Your task to perform on an android device: uninstall "ColorNote Notepad Notes" Image 0: 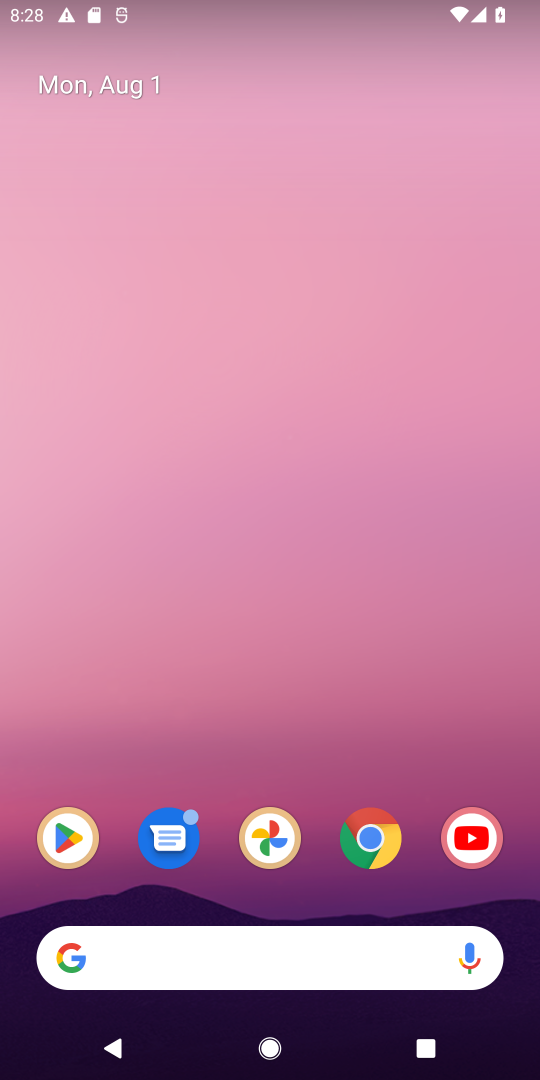
Step 0: drag from (303, 948) to (405, 129)
Your task to perform on an android device: uninstall "ColorNote Notepad Notes" Image 1: 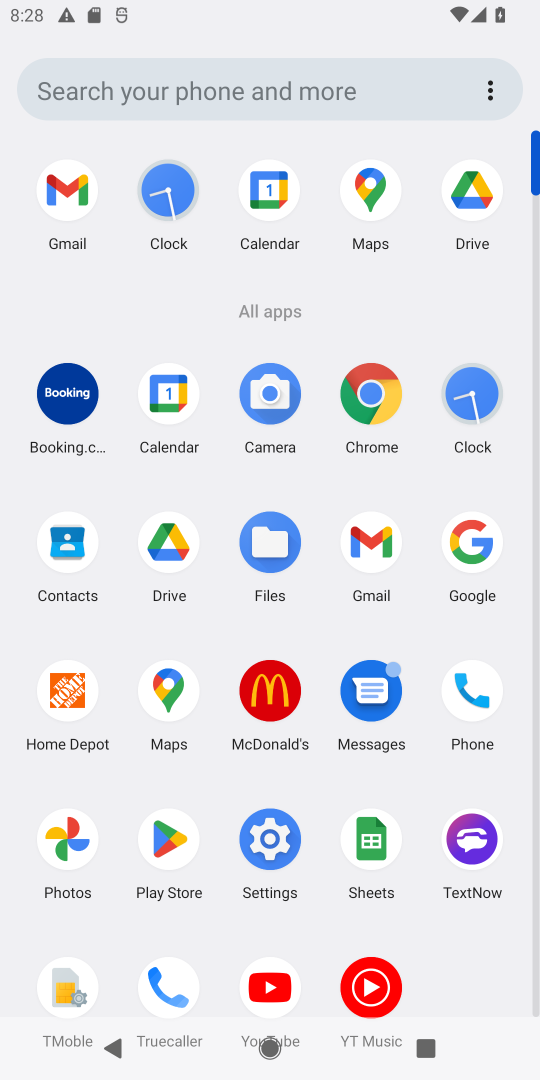
Step 1: click (165, 835)
Your task to perform on an android device: uninstall "ColorNote Notepad Notes" Image 2: 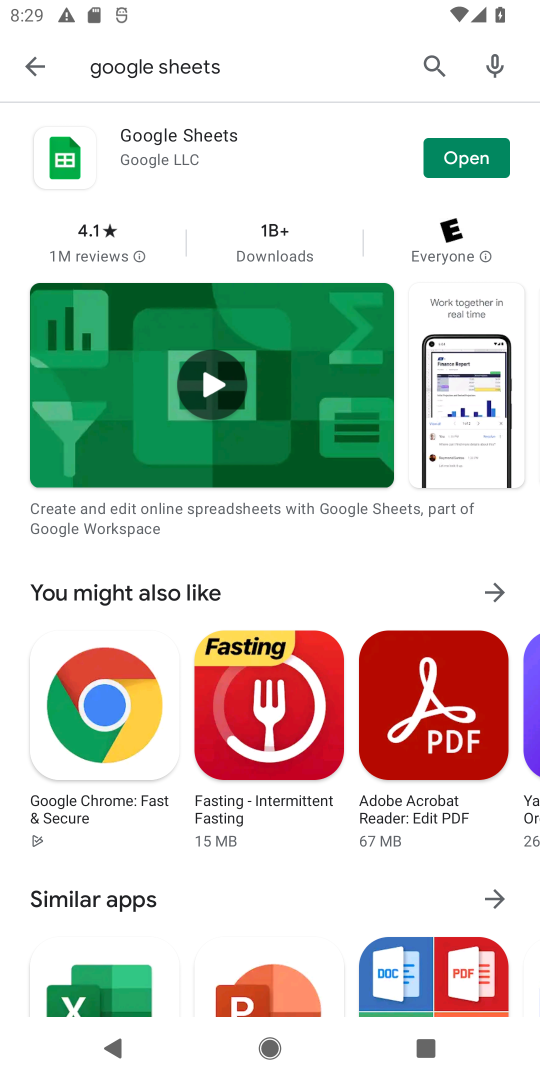
Step 2: click (428, 57)
Your task to perform on an android device: uninstall "ColorNote Notepad Notes" Image 3: 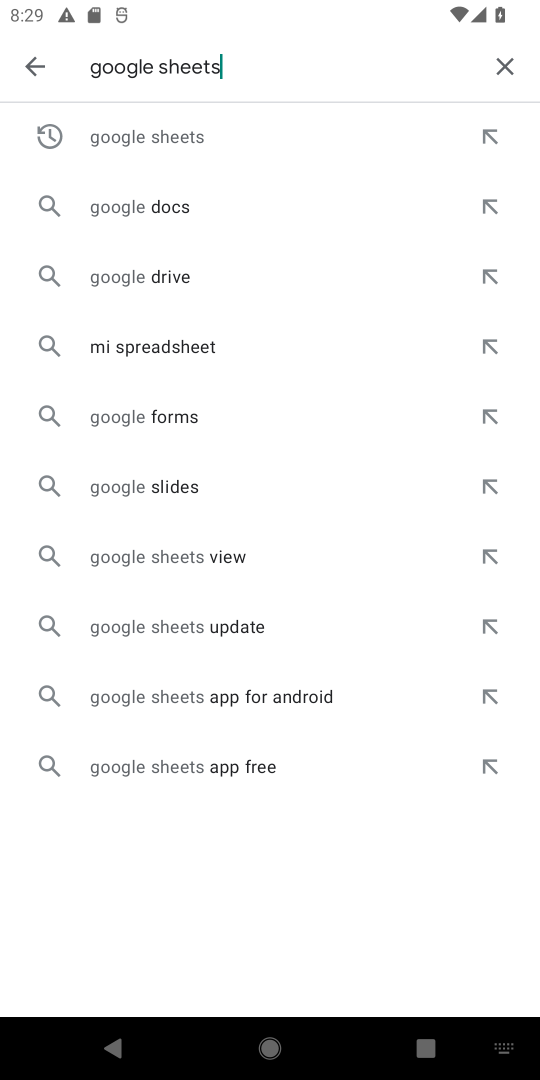
Step 3: click (507, 68)
Your task to perform on an android device: uninstall "ColorNote Notepad Notes" Image 4: 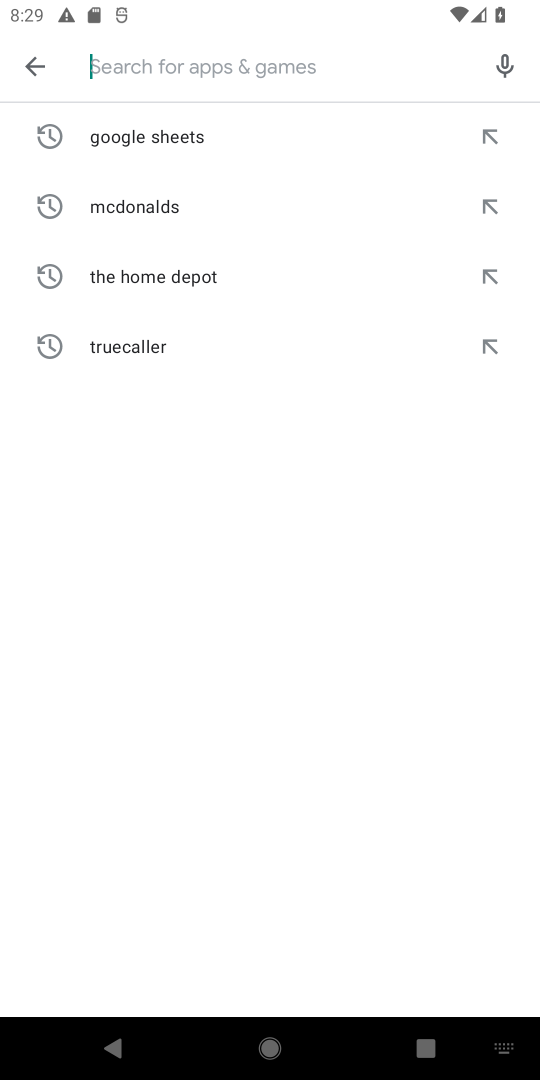
Step 4: type "colornote notepad notes"
Your task to perform on an android device: uninstall "ColorNote Notepad Notes" Image 5: 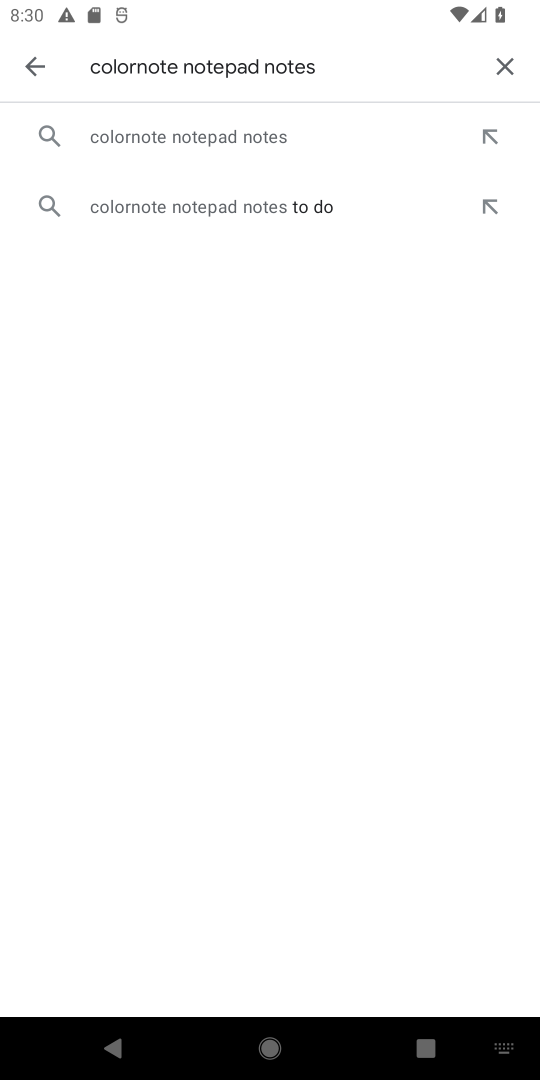
Step 5: click (198, 125)
Your task to perform on an android device: uninstall "ColorNote Notepad Notes" Image 6: 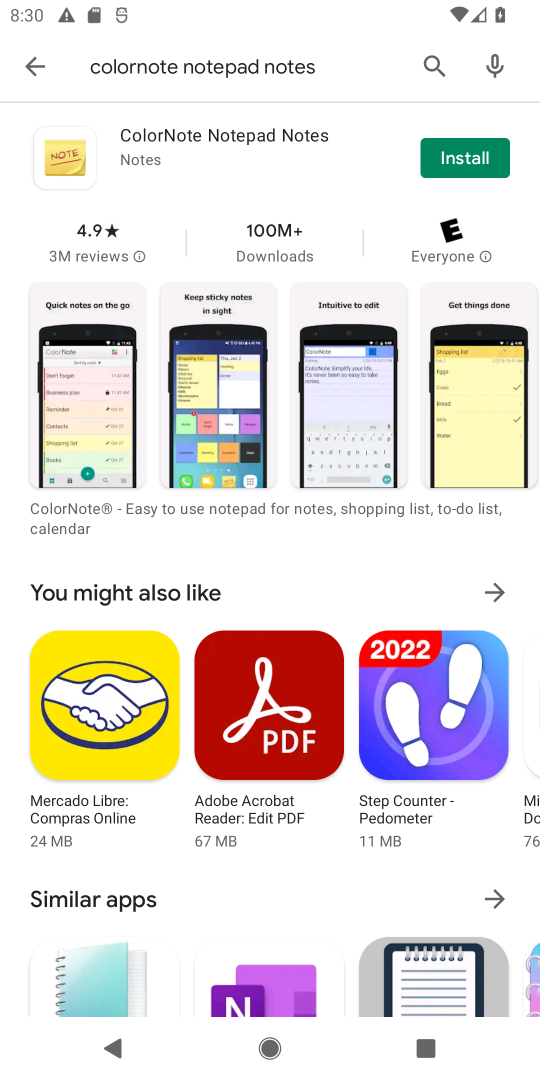
Step 6: task complete